Your task to perform on an android device: Go to Amazon Image 0: 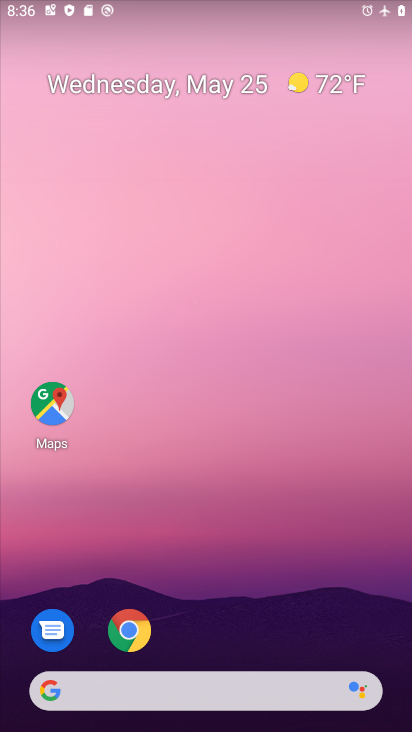
Step 0: click (141, 628)
Your task to perform on an android device: Go to Amazon Image 1: 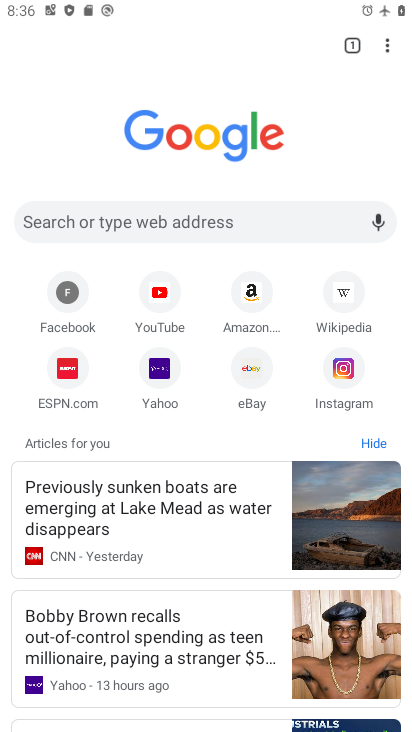
Step 1: click (256, 296)
Your task to perform on an android device: Go to Amazon Image 2: 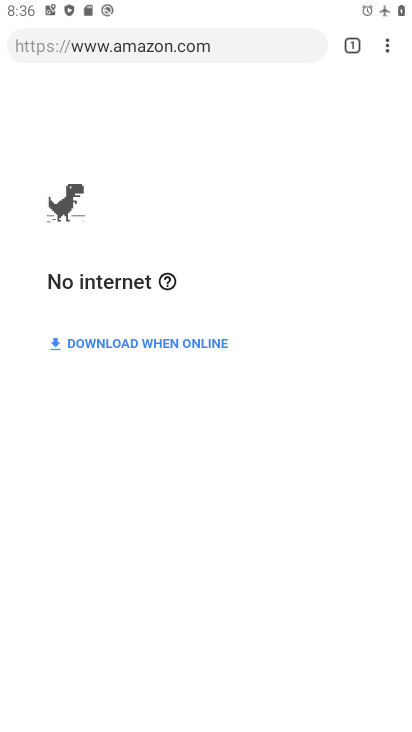
Step 2: task complete